Your task to perform on an android device: Go to notification settings Image 0: 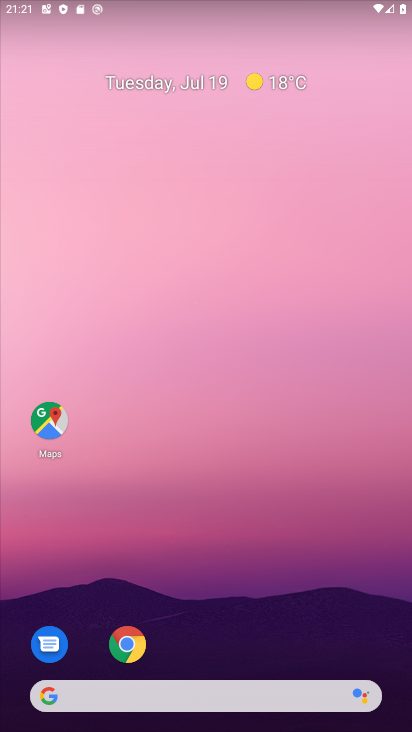
Step 0: drag from (208, 726) to (177, 113)
Your task to perform on an android device: Go to notification settings Image 1: 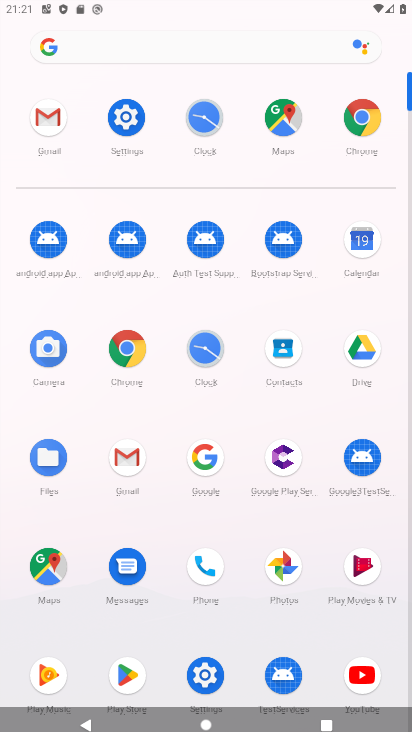
Step 1: click (135, 119)
Your task to perform on an android device: Go to notification settings Image 2: 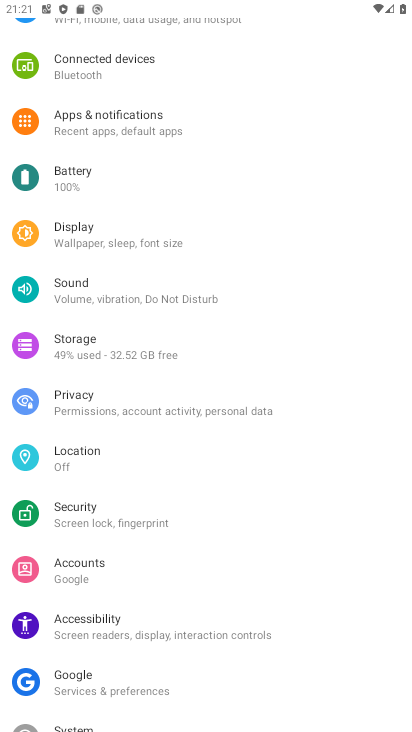
Step 2: click (103, 122)
Your task to perform on an android device: Go to notification settings Image 3: 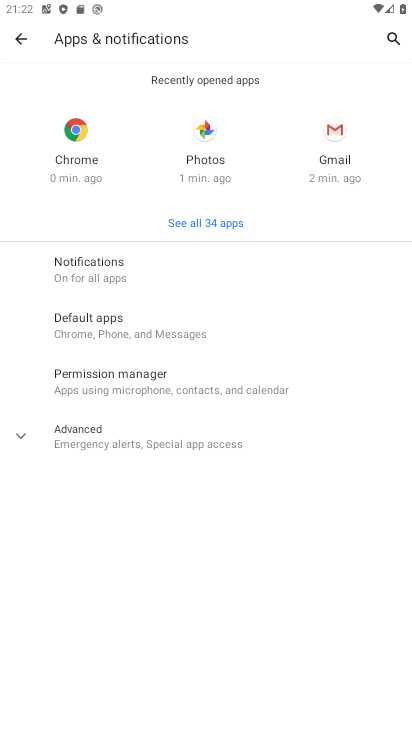
Step 3: click (88, 271)
Your task to perform on an android device: Go to notification settings Image 4: 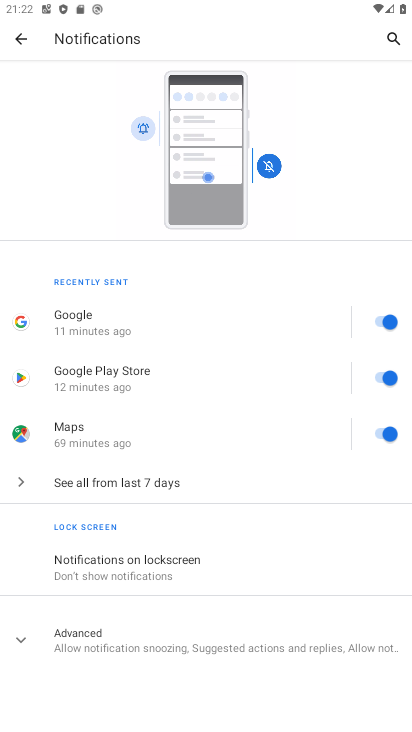
Step 4: task complete